Your task to perform on an android device: toggle sleep mode Image 0: 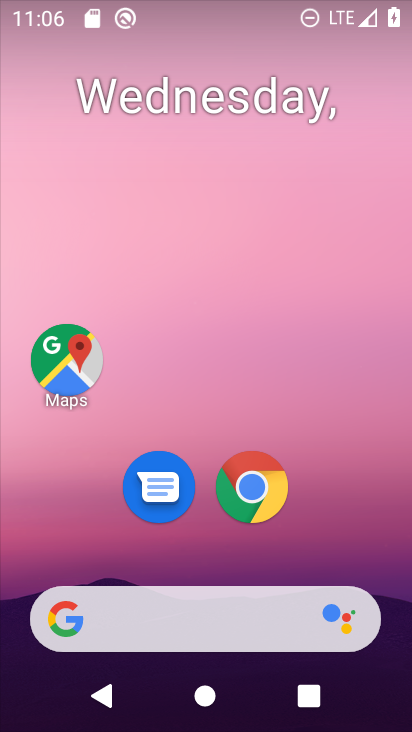
Step 0: drag from (334, 542) to (224, 15)
Your task to perform on an android device: toggle sleep mode Image 1: 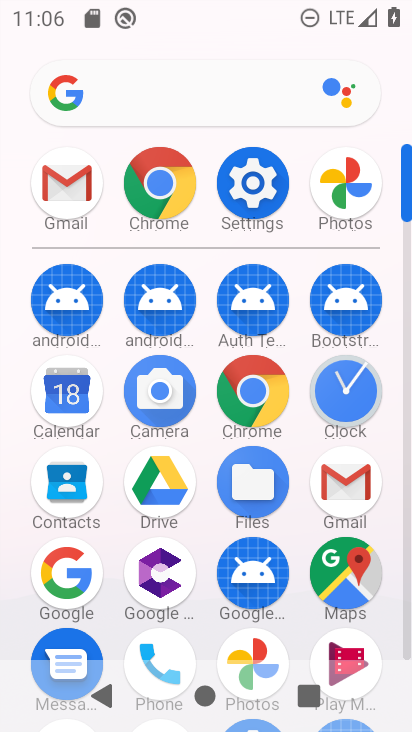
Step 1: click (252, 184)
Your task to perform on an android device: toggle sleep mode Image 2: 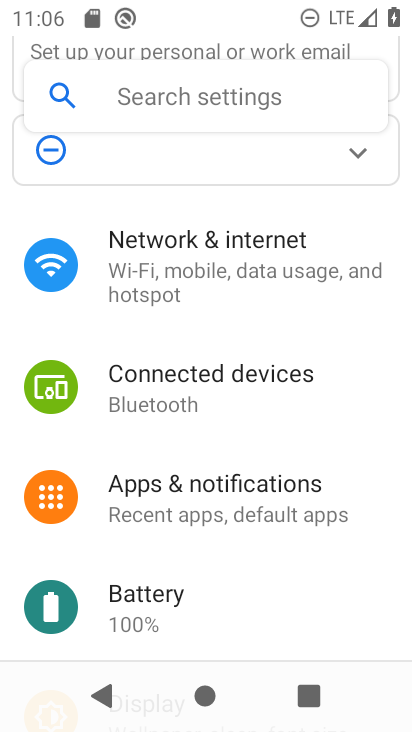
Step 2: drag from (240, 443) to (216, 211)
Your task to perform on an android device: toggle sleep mode Image 3: 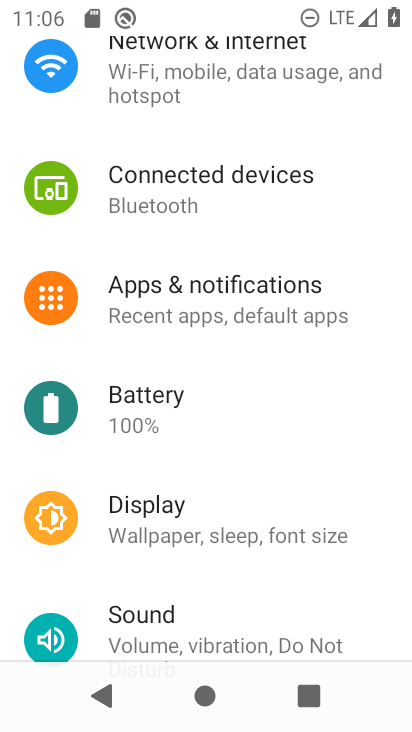
Step 3: click (159, 503)
Your task to perform on an android device: toggle sleep mode Image 4: 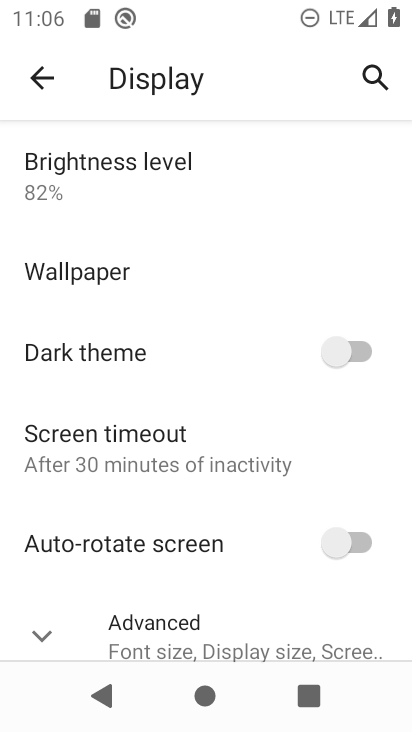
Step 4: task complete